Your task to perform on an android device: change notification settings in the gmail app Image 0: 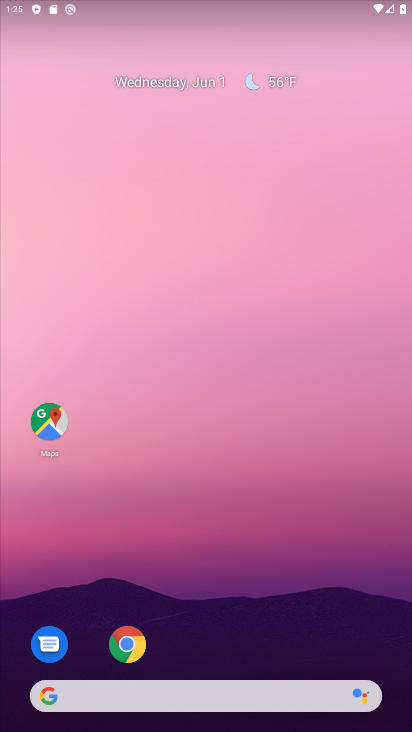
Step 0: drag from (202, 653) to (197, 373)
Your task to perform on an android device: change notification settings in the gmail app Image 1: 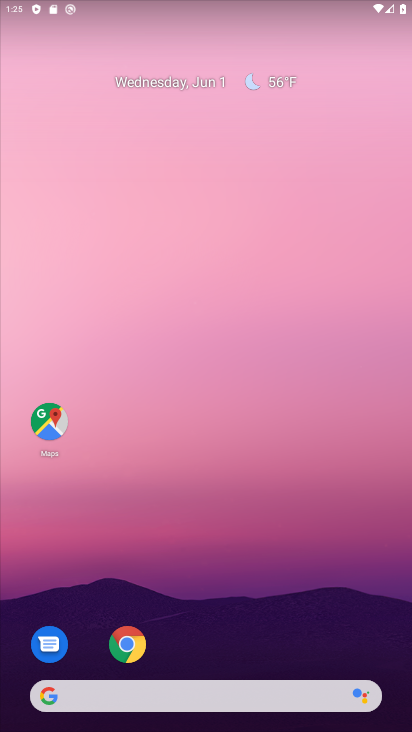
Step 1: drag from (199, 624) to (199, 209)
Your task to perform on an android device: change notification settings in the gmail app Image 2: 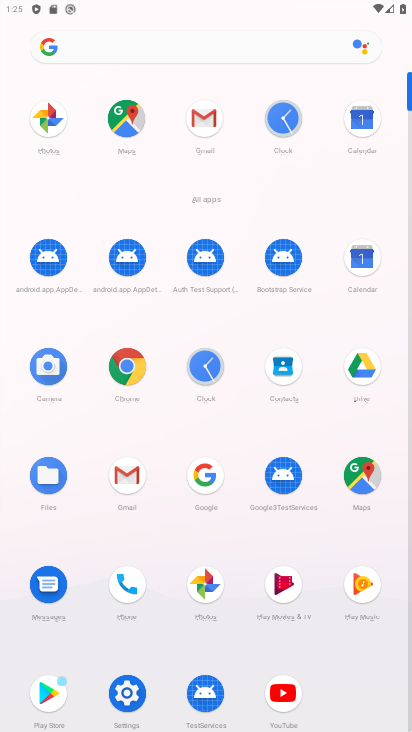
Step 2: click (358, 265)
Your task to perform on an android device: change notification settings in the gmail app Image 3: 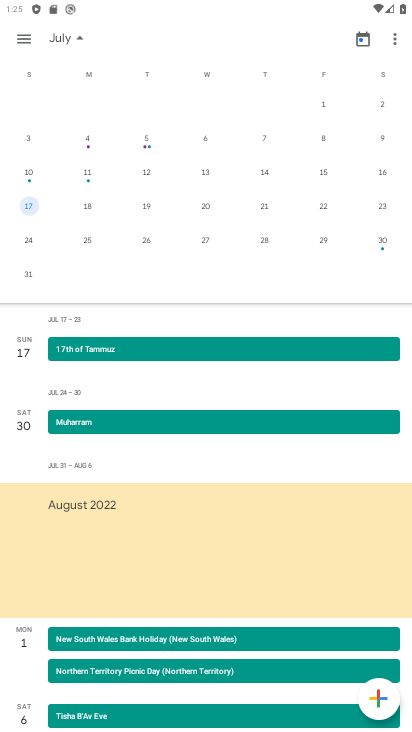
Step 3: task complete